Your task to perform on an android device: see tabs open on other devices in the chrome app Image 0: 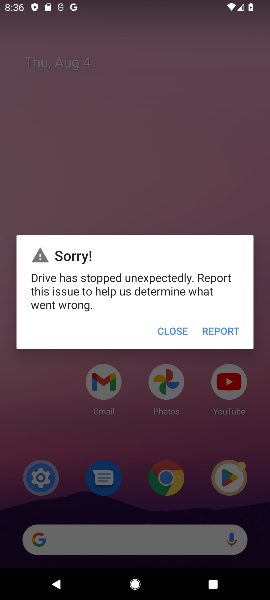
Step 0: press home button
Your task to perform on an android device: see tabs open on other devices in the chrome app Image 1: 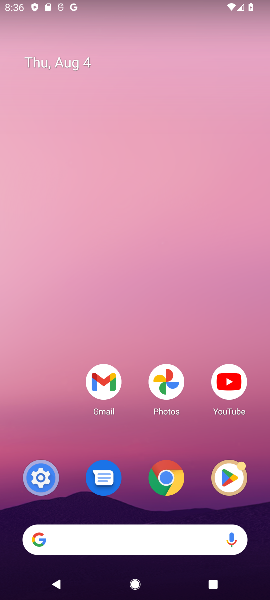
Step 1: click (164, 480)
Your task to perform on an android device: see tabs open on other devices in the chrome app Image 2: 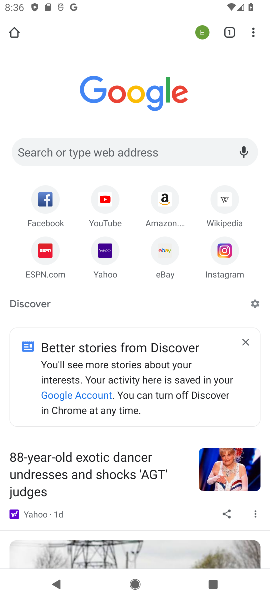
Step 2: task complete